Your task to perform on an android device: open wifi settings Image 0: 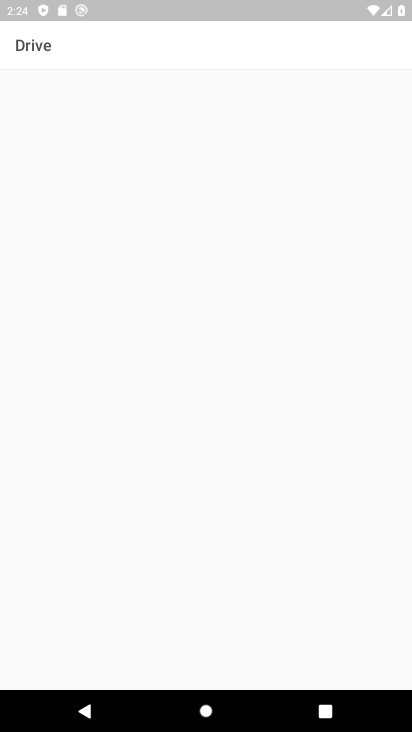
Step 0: press home button
Your task to perform on an android device: open wifi settings Image 1: 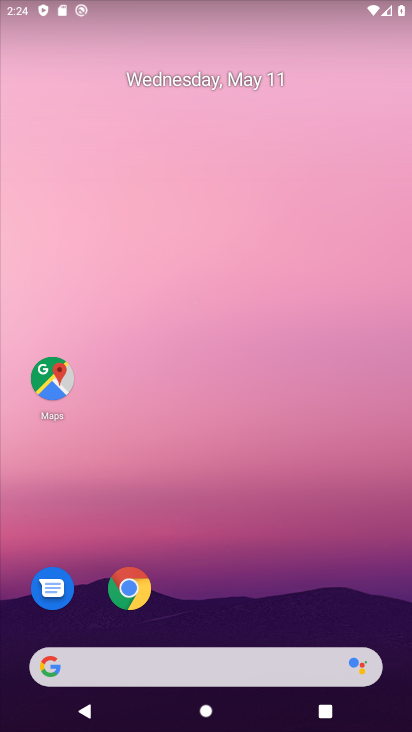
Step 1: drag from (187, 4) to (183, 442)
Your task to perform on an android device: open wifi settings Image 2: 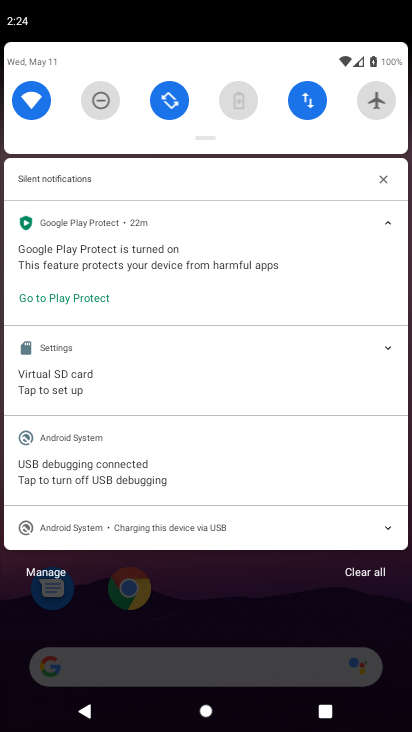
Step 2: drag from (59, 105) to (70, 497)
Your task to perform on an android device: open wifi settings Image 3: 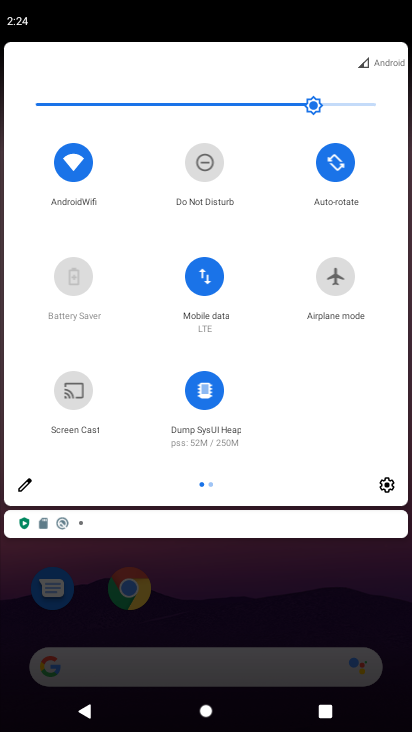
Step 3: click (76, 163)
Your task to perform on an android device: open wifi settings Image 4: 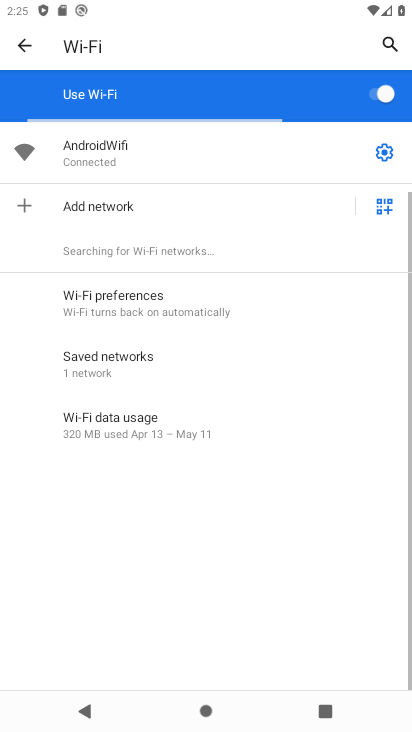
Step 4: task complete